Your task to perform on an android device: turn notification dots on Image 0: 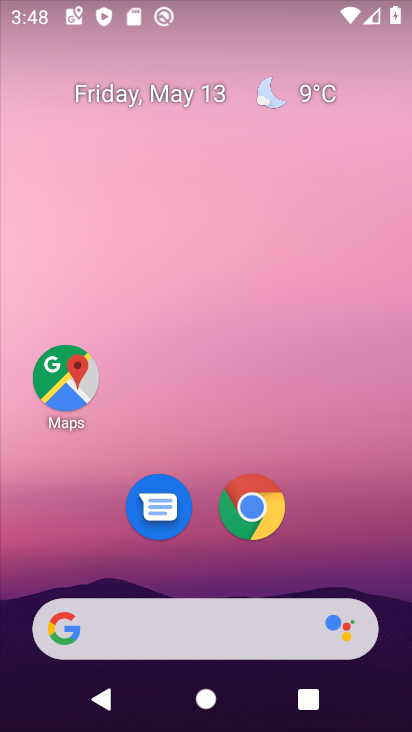
Step 0: drag from (364, 513) to (299, 29)
Your task to perform on an android device: turn notification dots on Image 1: 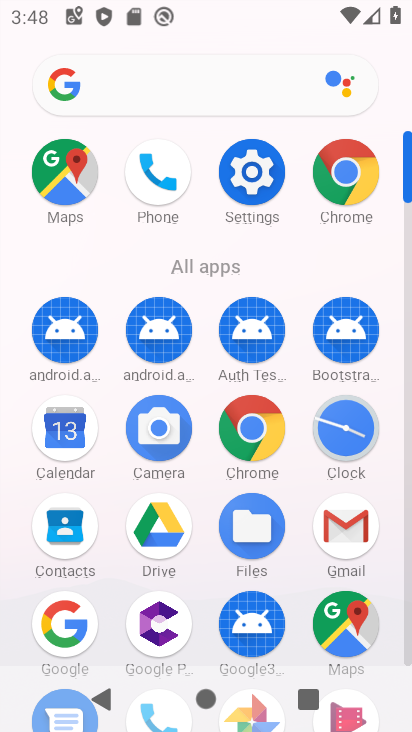
Step 1: click (255, 194)
Your task to perform on an android device: turn notification dots on Image 2: 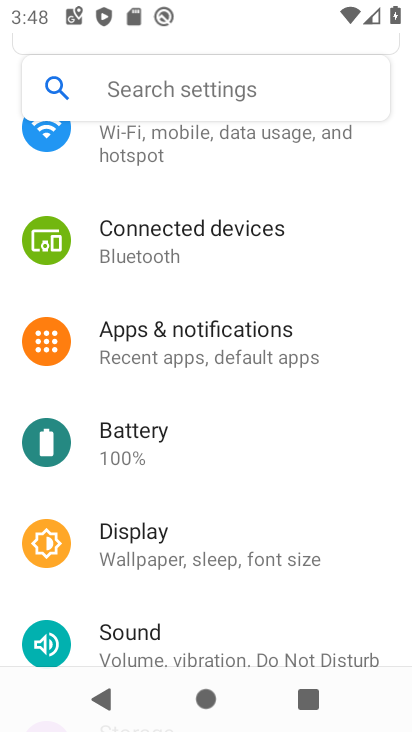
Step 2: click (255, 341)
Your task to perform on an android device: turn notification dots on Image 3: 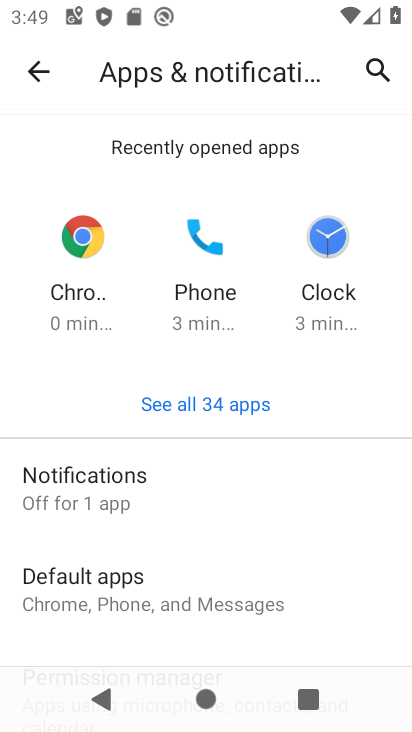
Step 3: click (98, 492)
Your task to perform on an android device: turn notification dots on Image 4: 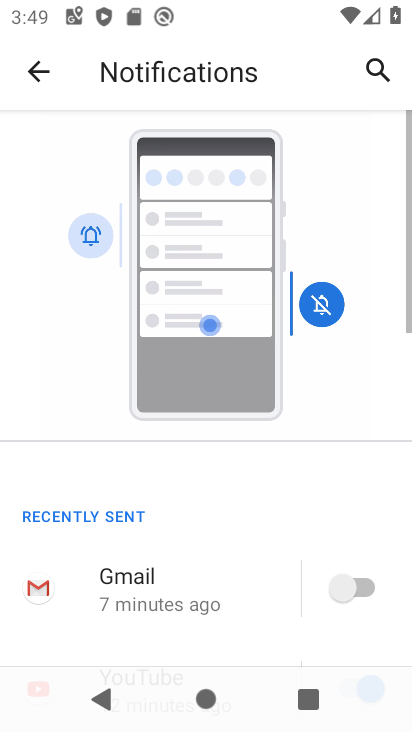
Step 4: drag from (179, 565) to (220, 127)
Your task to perform on an android device: turn notification dots on Image 5: 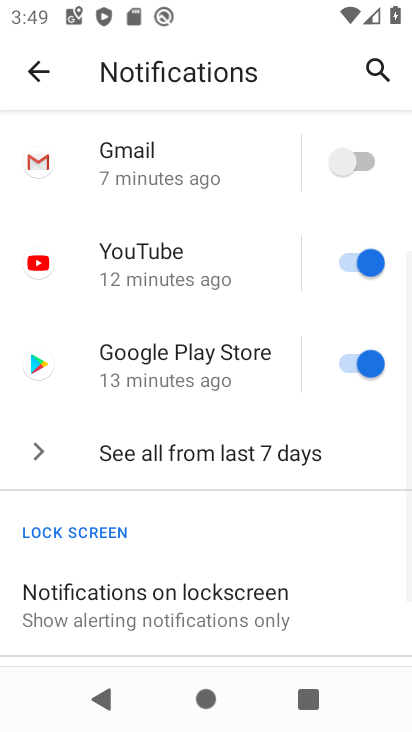
Step 5: drag from (161, 577) to (167, 94)
Your task to perform on an android device: turn notification dots on Image 6: 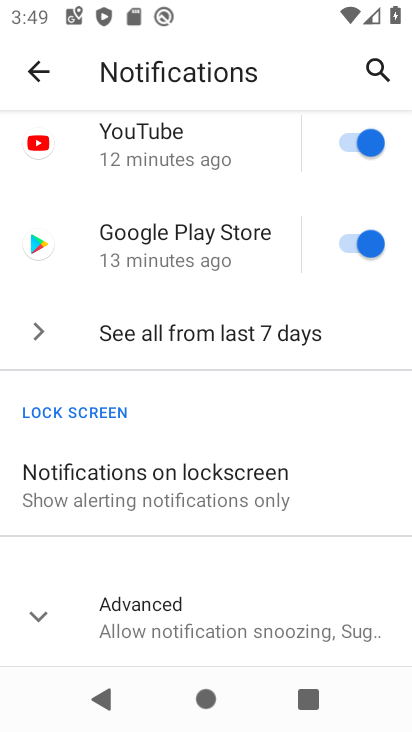
Step 6: click (122, 619)
Your task to perform on an android device: turn notification dots on Image 7: 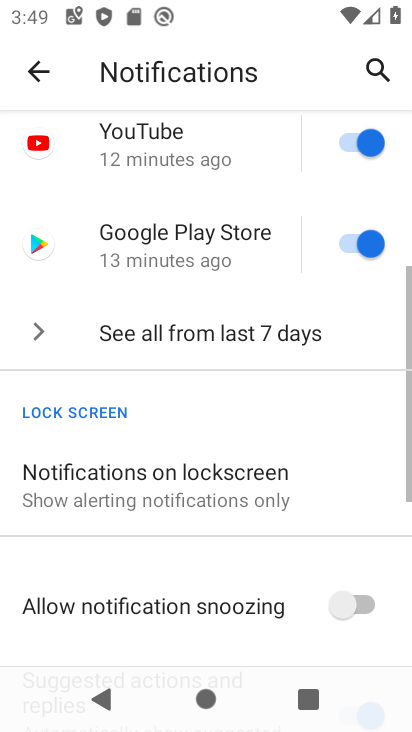
Step 7: task complete